Your task to perform on an android device: Go to internet settings Image 0: 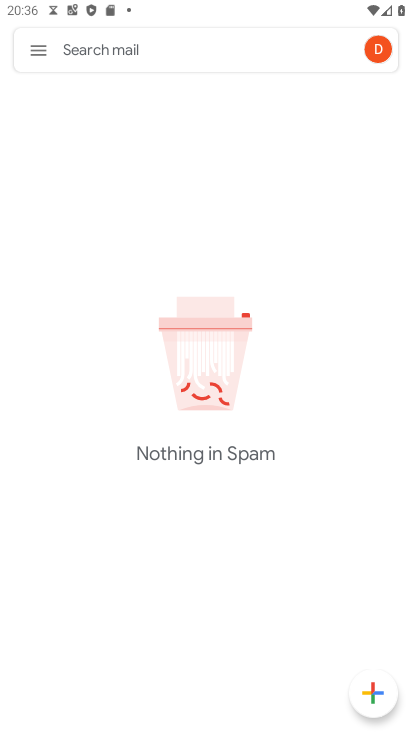
Step 0: press home button
Your task to perform on an android device: Go to internet settings Image 1: 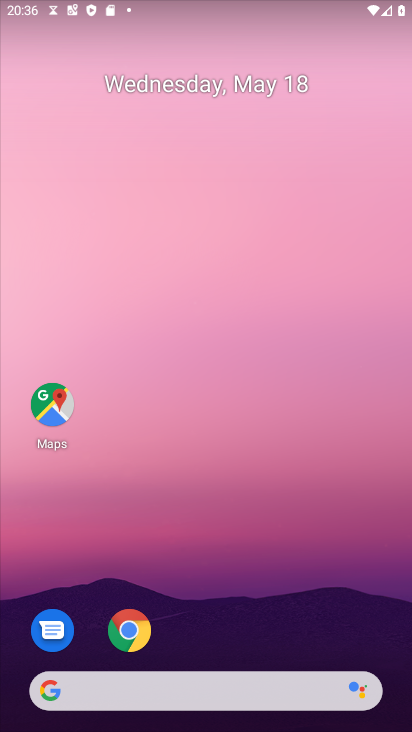
Step 1: drag from (209, 669) to (345, 119)
Your task to perform on an android device: Go to internet settings Image 2: 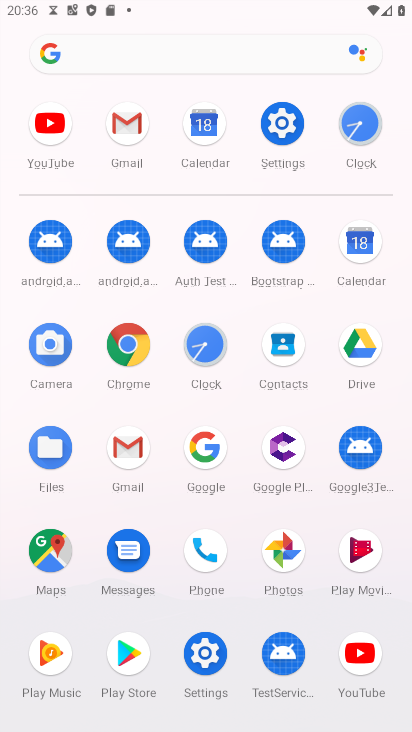
Step 2: click (289, 118)
Your task to perform on an android device: Go to internet settings Image 3: 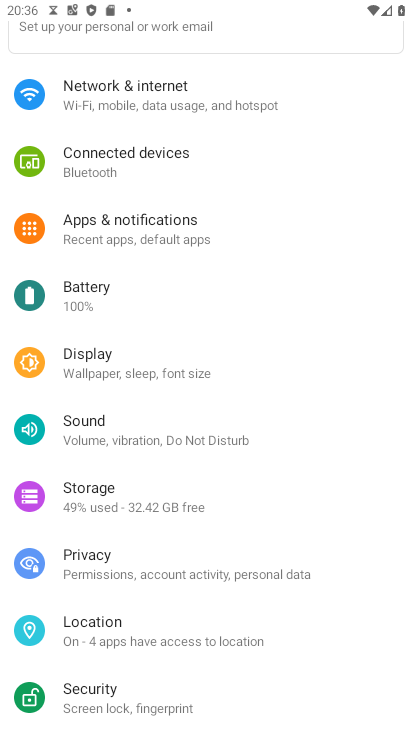
Step 3: click (172, 97)
Your task to perform on an android device: Go to internet settings Image 4: 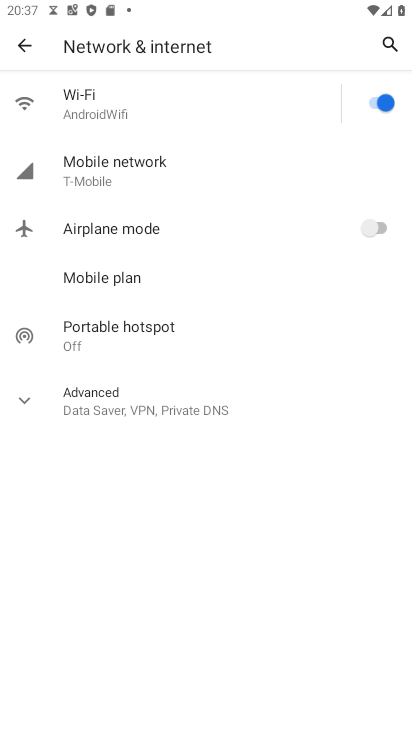
Step 4: task complete